Your task to perform on an android device: turn vacation reply on in the gmail app Image 0: 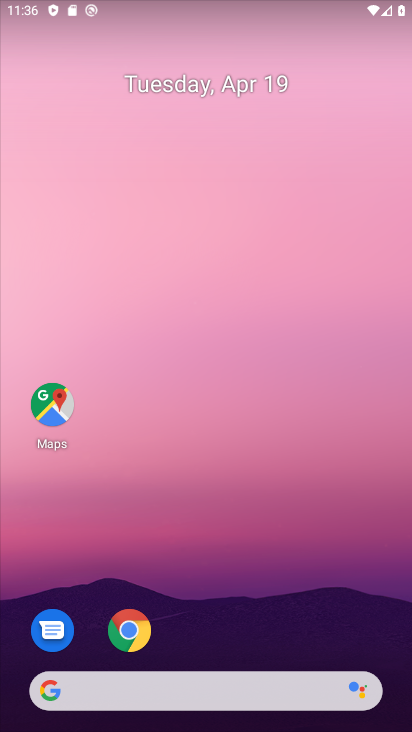
Step 0: drag from (336, 610) to (325, 76)
Your task to perform on an android device: turn vacation reply on in the gmail app Image 1: 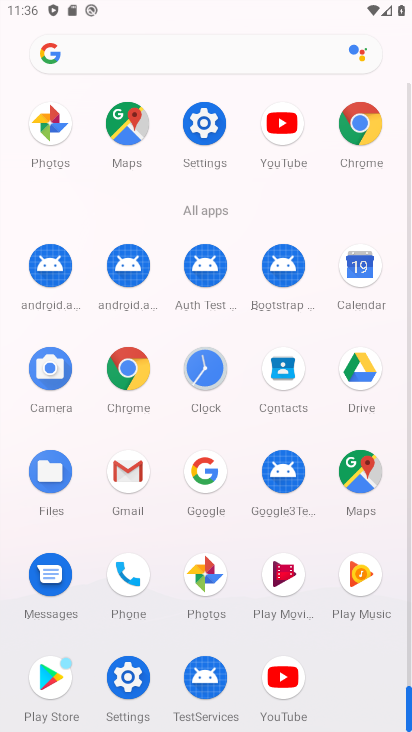
Step 1: click (134, 472)
Your task to perform on an android device: turn vacation reply on in the gmail app Image 2: 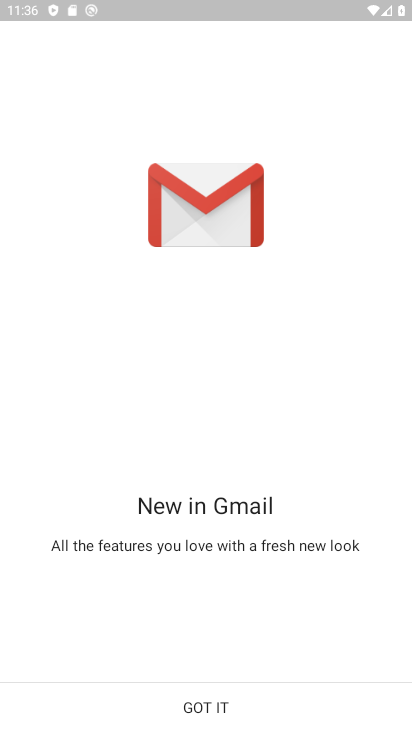
Step 2: click (219, 709)
Your task to perform on an android device: turn vacation reply on in the gmail app Image 3: 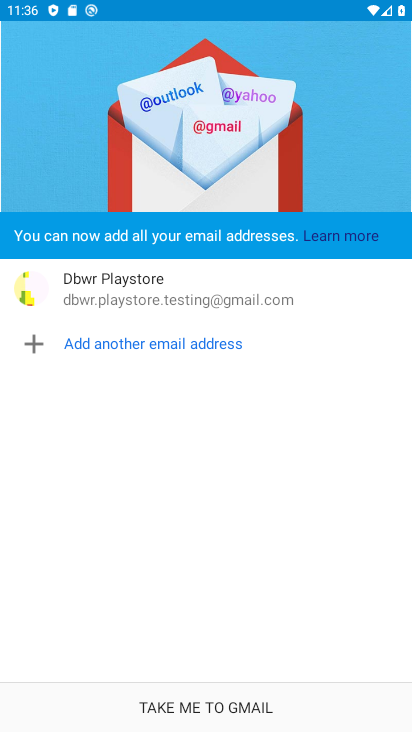
Step 3: click (219, 709)
Your task to perform on an android device: turn vacation reply on in the gmail app Image 4: 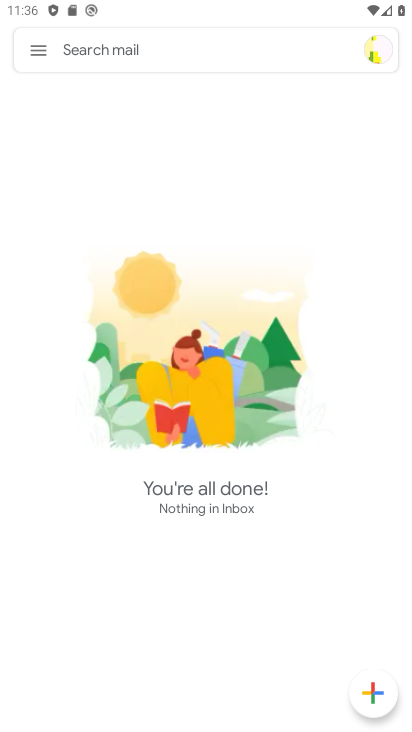
Step 4: click (33, 49)
Your task to perform on an android device: turn vacation reply on in the gmail app Image 5: 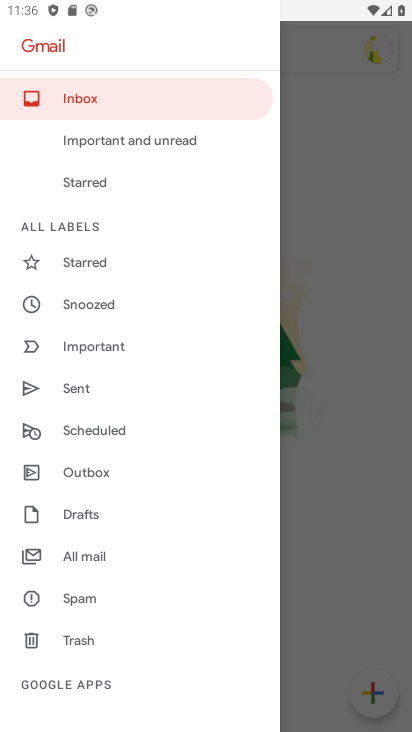
Step 5: drag from (182, 582) to (205, 232)
Your task to perform on an android device: turn vacation reply on in the gmail app Image 6: 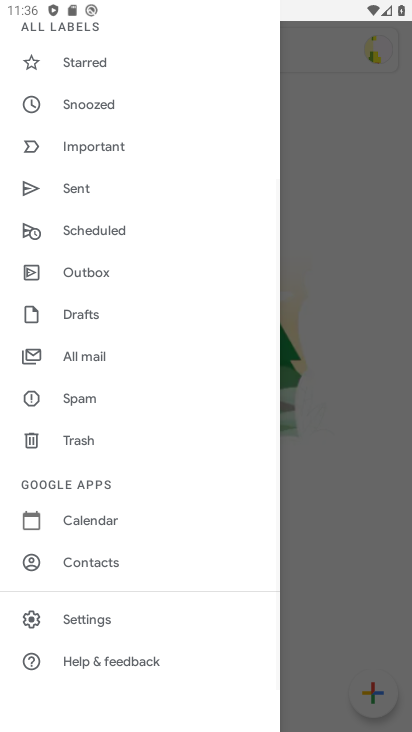
Step 6: click (79, 620)
Your task to perform on an android device: turn vacation reply on in the gmail app Image 7: 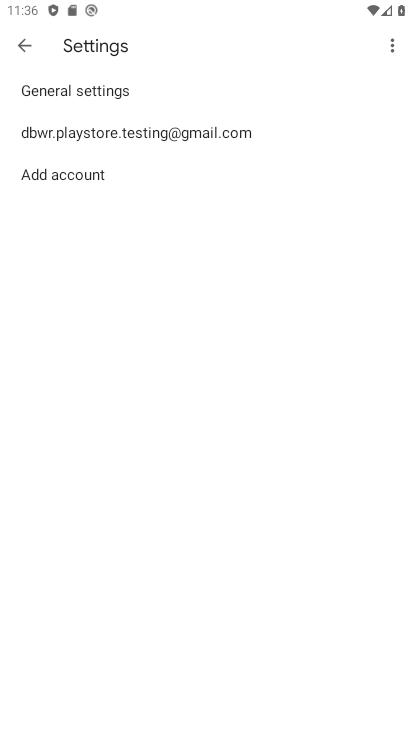
Step 7: click (160, 136)
Your task to perform on an android device: turn vacation reply on in the gmail app Image 8: 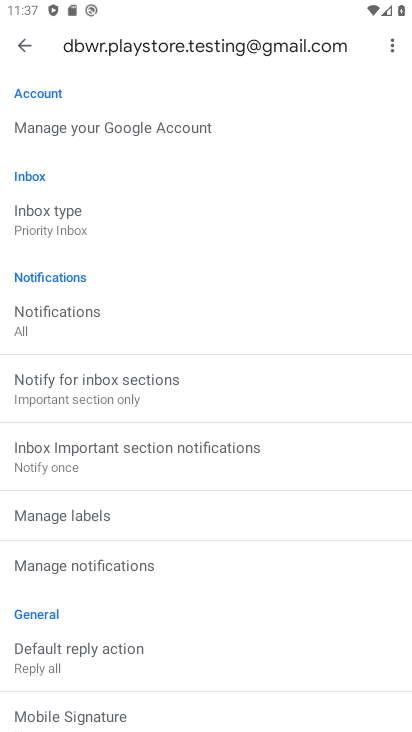
Step 8: drag from (218, 645) to (223, 283)
Your task to perform on an android device: turn vacation reply on in the gmail app Image 9: 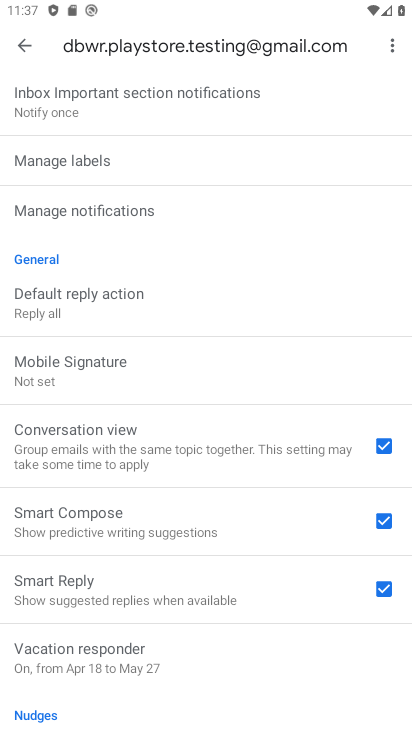
Step 9: click (126, 654)
Your task to perform on an android device: turn vacation reply on in the gmail app Image 10: 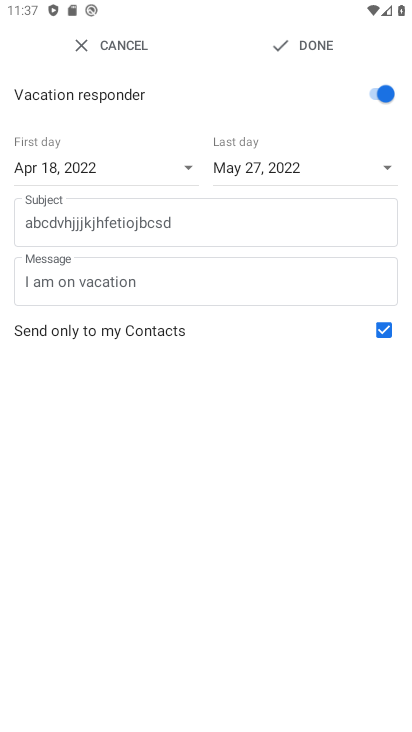
Step 10: task complete